Your task to perform on an android device: find photos in the google photos app Image 0: 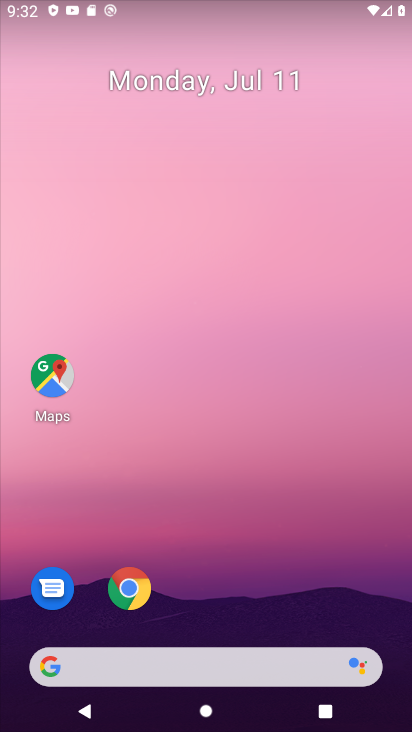
Step 0: drag from (327, 549) to (339, 38)
Your task to perform on an android device: find photos in the google photos app Image 1: 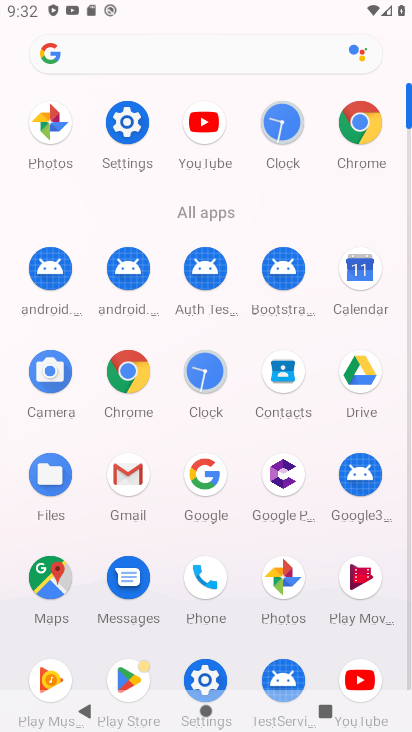
Step 1: click (289, 581)
Your task to perform on an android device: find photos in the google photos app Image 2: 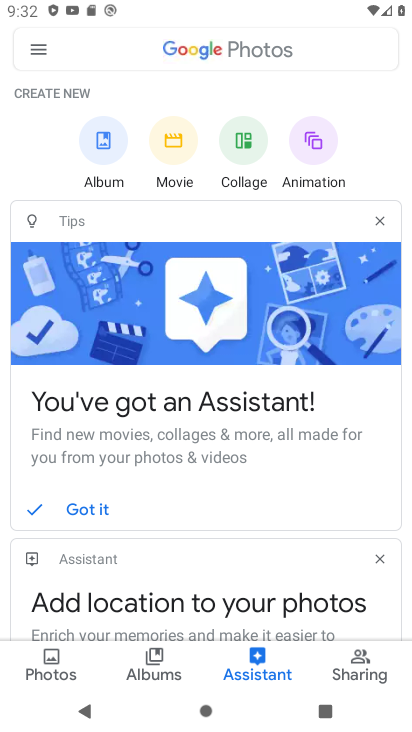
Step 2: click (48, 673)
Your task to perform on an android device: find photos in the google photos app Image 3: 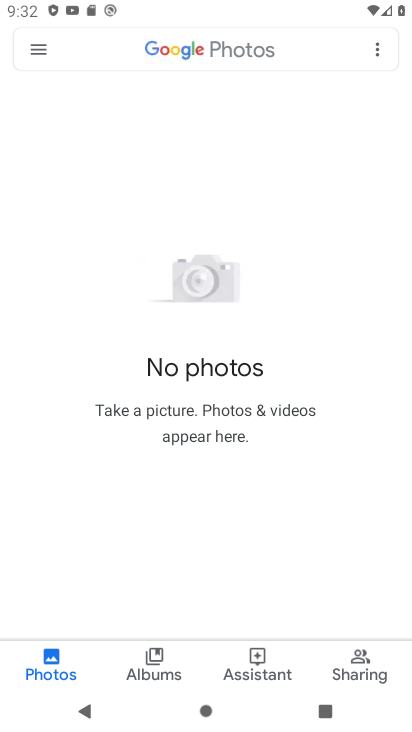
Step 3: task complete